Your task to perform on an android device: Search for sushi restaurants on Maps Image 0: 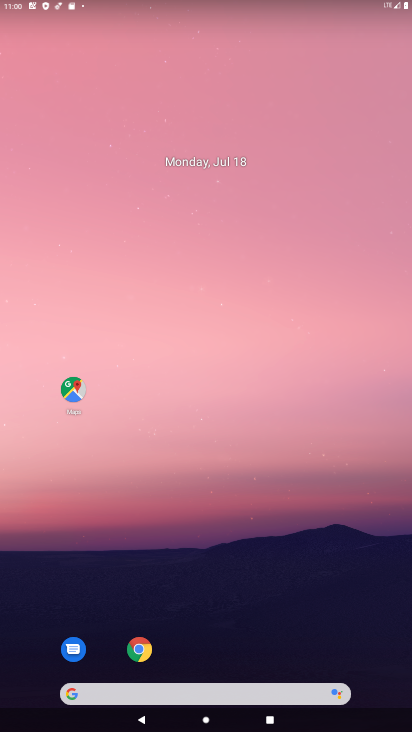
Step 0: click (73, 390)
Your task to perform on an android device: Search for sushi restaurants on Maps Image 1: 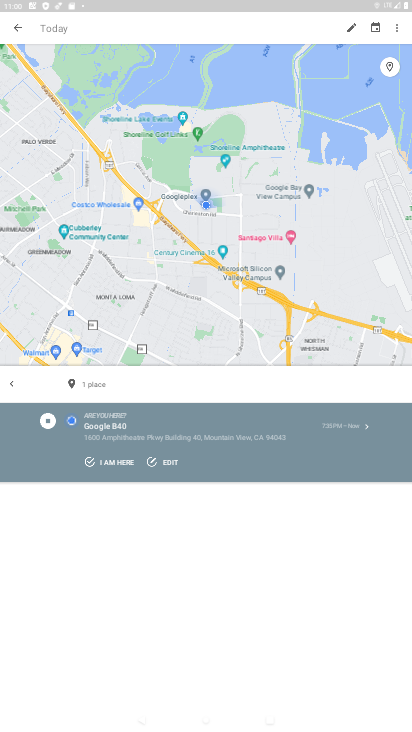
Step 1: click (14, 32)
Your task to perform on an android device: Search for sushi restaurants on Maps Image 2: 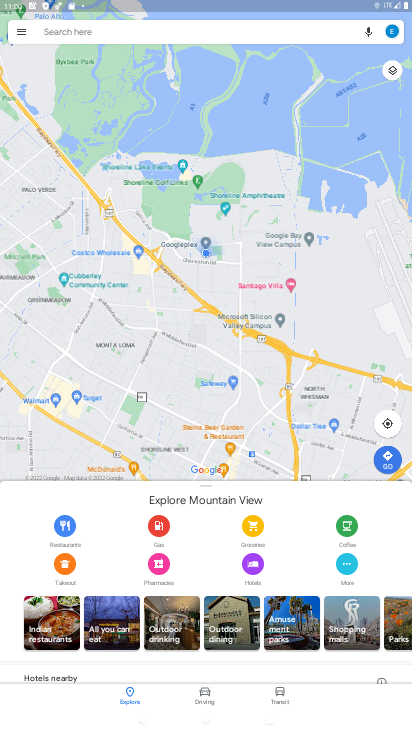
Step 2: click (152, 29)
Your task to perform on an android device: Search for sushi restaurants on Maps Image 3: 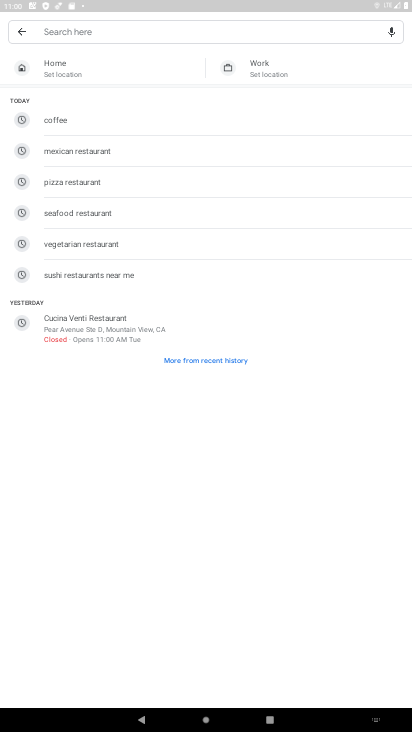
Step 3: click (105, 274)
Your task to perform on an android device: Search for sushi restaurants on Maps Image 4: 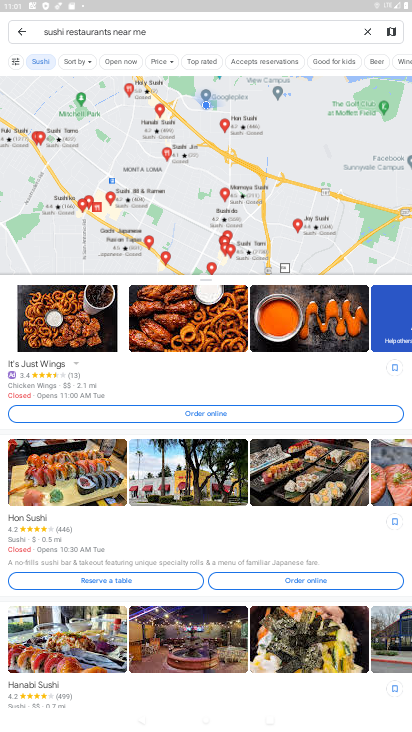
Step 4: task complete